Your task to perform on an android device: Go to Amazon Image 0: 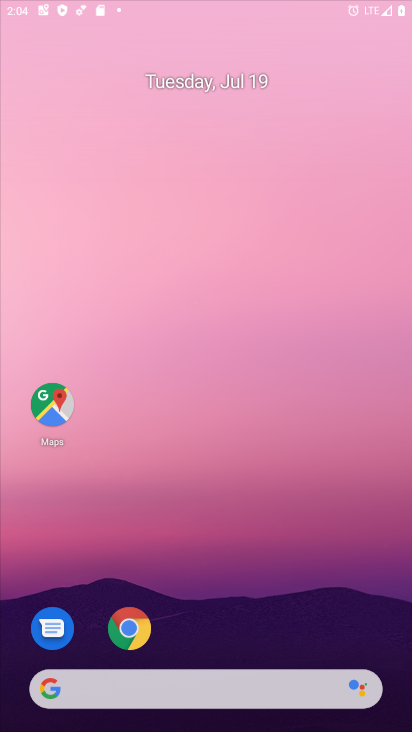
Step 0: press home button
Your task to perform on an android device: Go to Amazon Image 1: 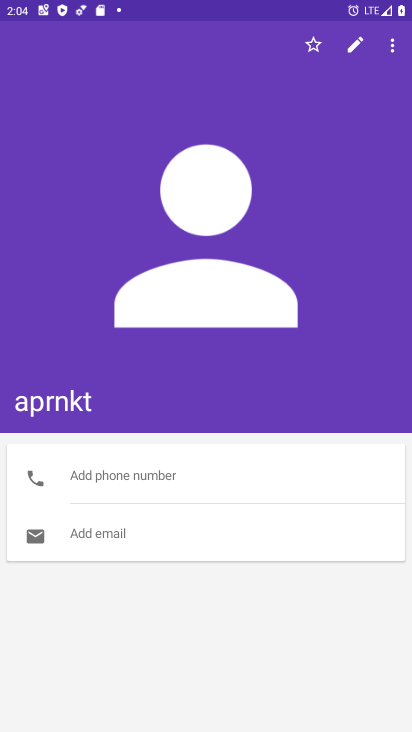
Step 1: click (274, 35)
Your task to perform on an android device: Go to Amazon Image 2: 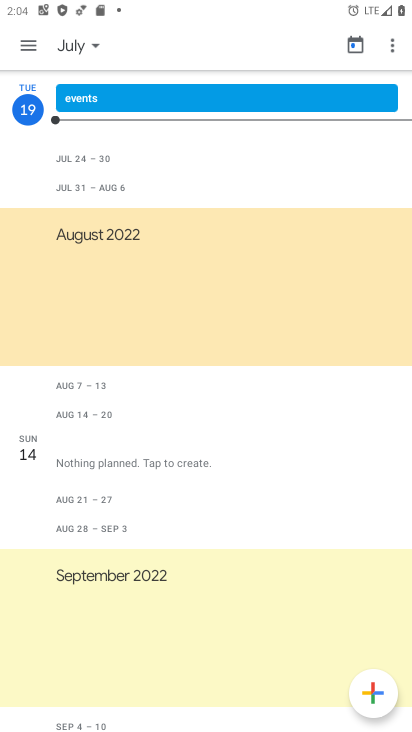
Step 2: press home button
Your task to perform on an android device: Go to Amazon Image 3: 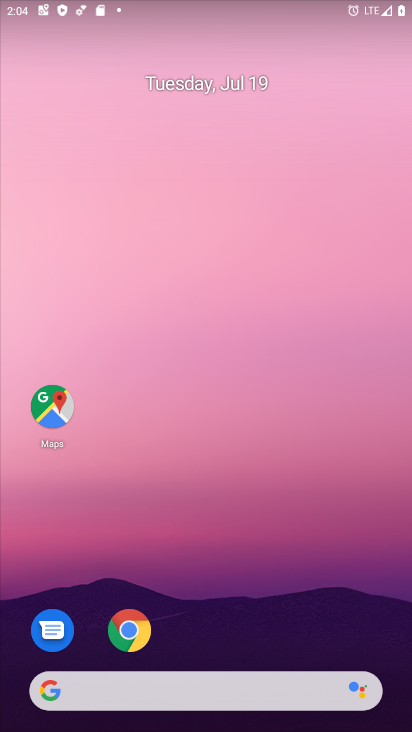
Step 3: click (125, 624)
Your task to perform on an android device: Go to Amazon Image 4: 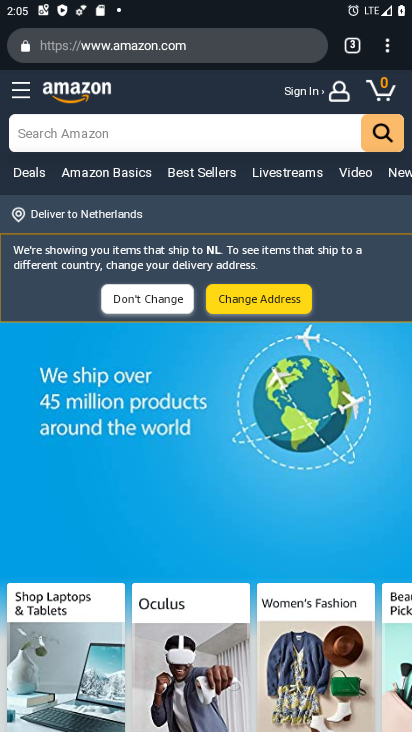
Step 4: task complete